Your task to perform on an android device: Open Yahoo.com Image 0: 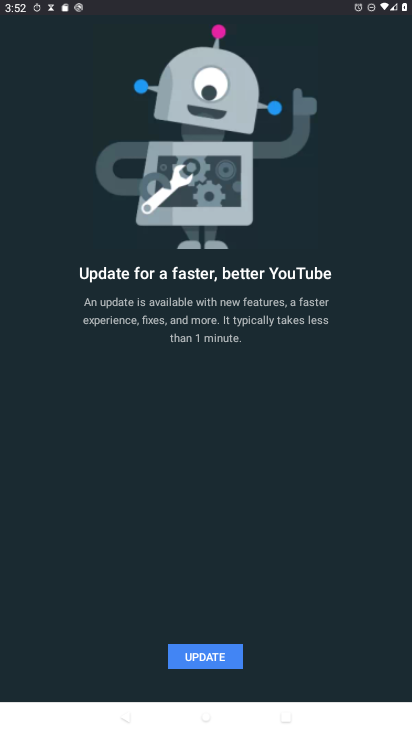
Step 0: press home button
Your task to perform on an android device: Open Yahoo.com Image 1: 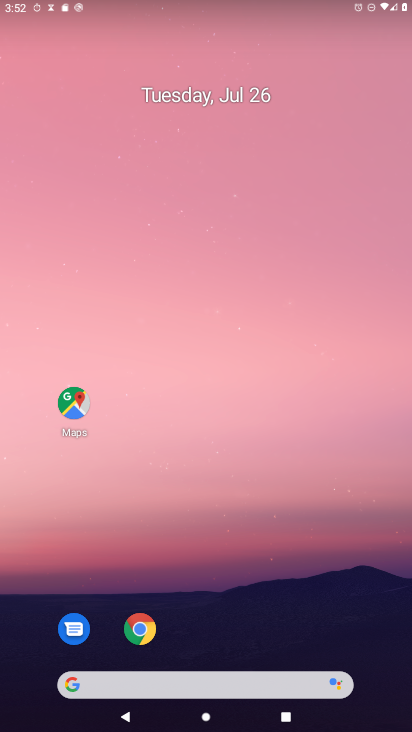
Step 1: drag from (290, 693) to (240, 90)
Your task to perform on an android device: Open Yahoo.com Image 2: 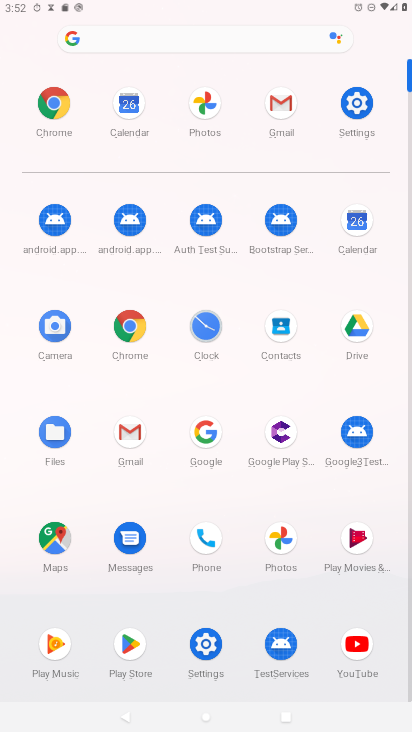
Step 2: click (126, 311)
Your task to perform on an android device: Open Yahoo.com Image 3: 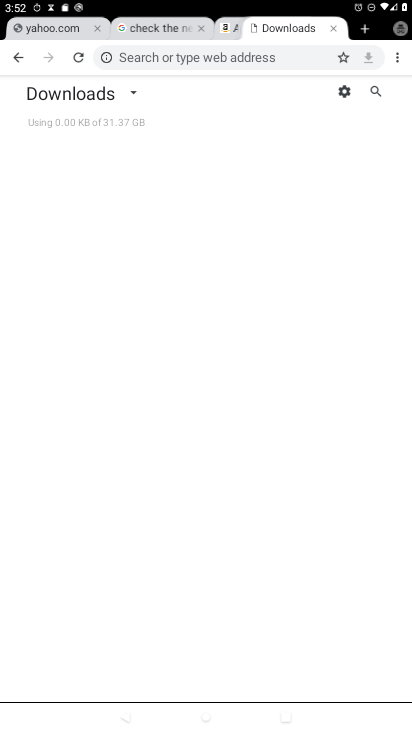
Step 3: click (281, 61)
Your task to perform on an android device: Open Yahoo.com Image 4: 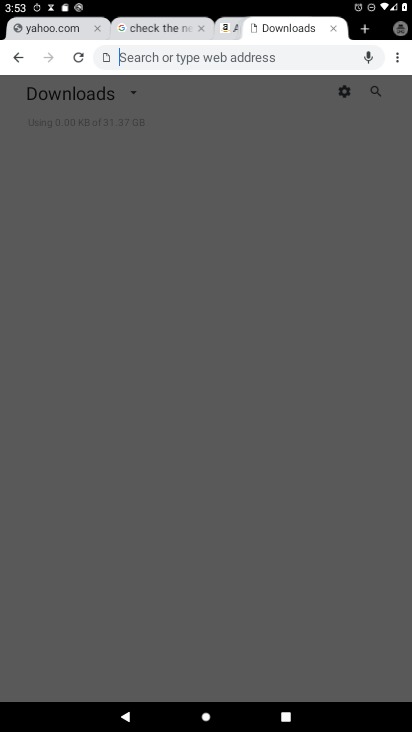
Step 4: type "yahoo.com"
Your task to perform on an android device: Open Yahoo.com Image 5: 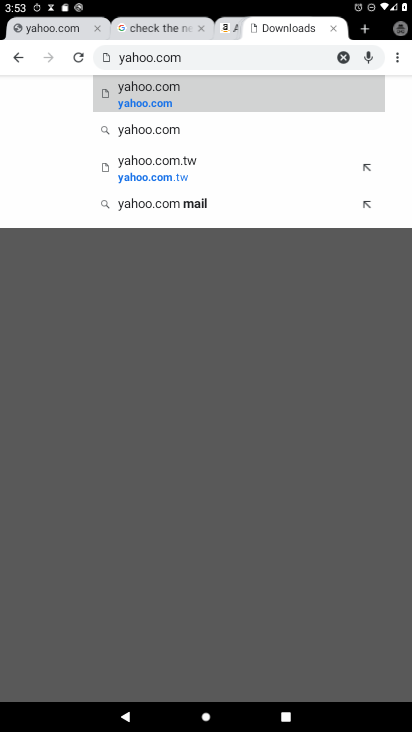
Step 5: click (251, 82)
Your task to perform on an android device: Open Yahoo.com Image 6: 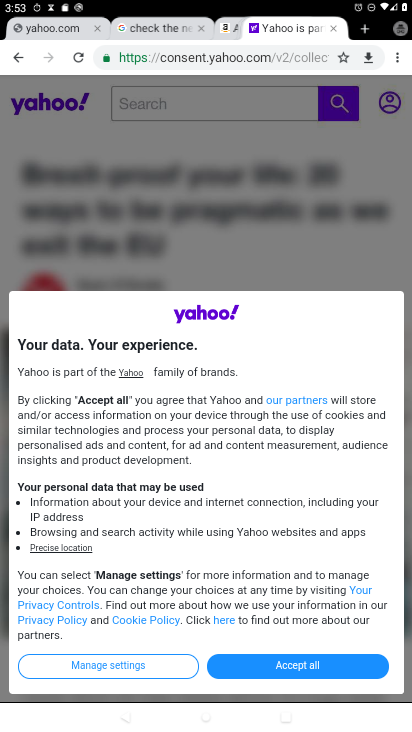
Step 6: task complete